Your task to perform on an android device: See recent photos Image 0: 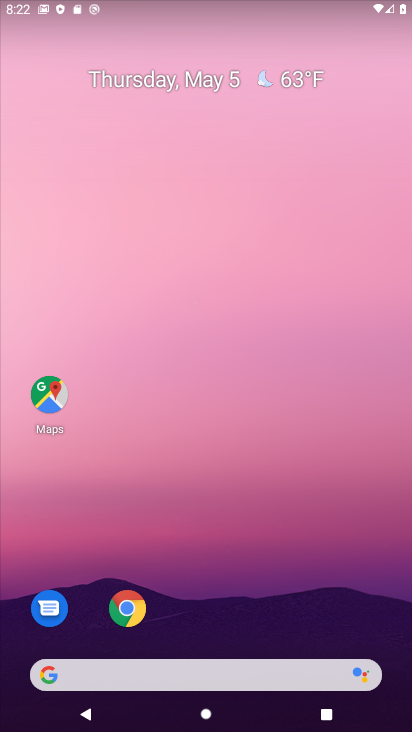
Step 0: drag from (213, 602) to (87, 103)
Your task to perform on an android device: See recent photos Image 1: 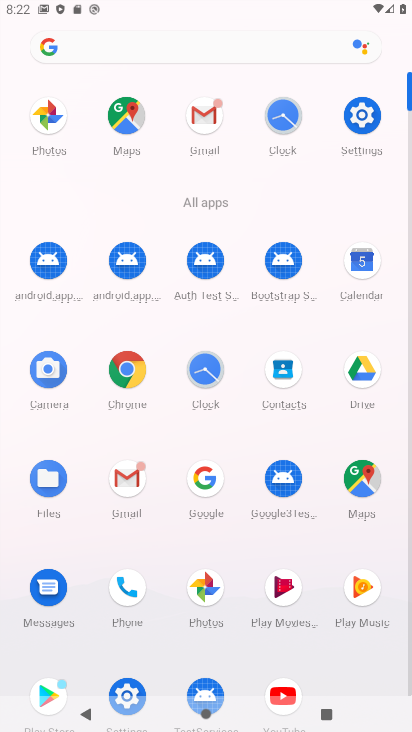
Step 1: click (205, 599)
Your task to perform on an android device: See recent photos Image 2: 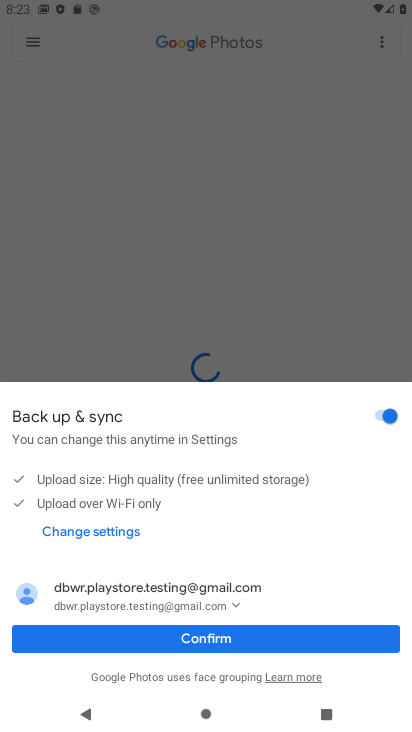
Step 2: click (201, 642)
Your task to perform on an android device: See recent photos Image 3: 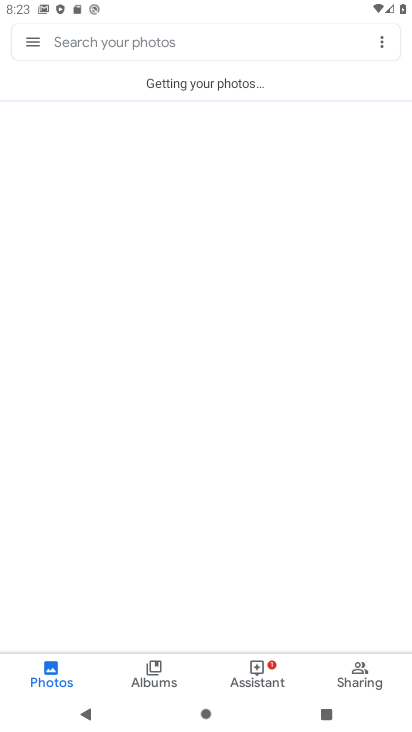
Step 3: click (274, 379)
Your task to perform on an android device: See recent photos Image 4: 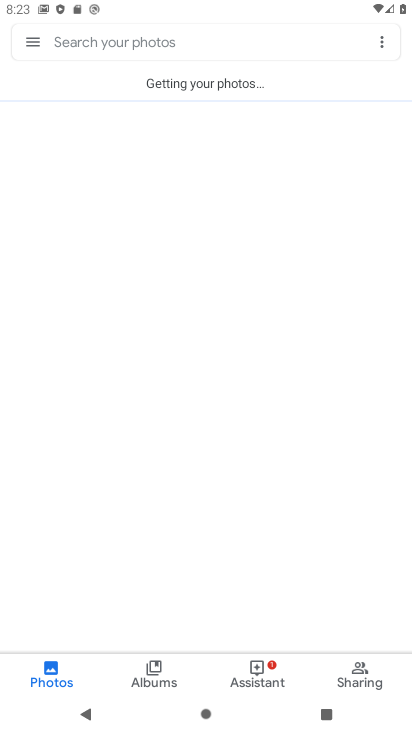
Step 4: click (200, 343)
Your task to perform on an android device: See recent photos Image 5: 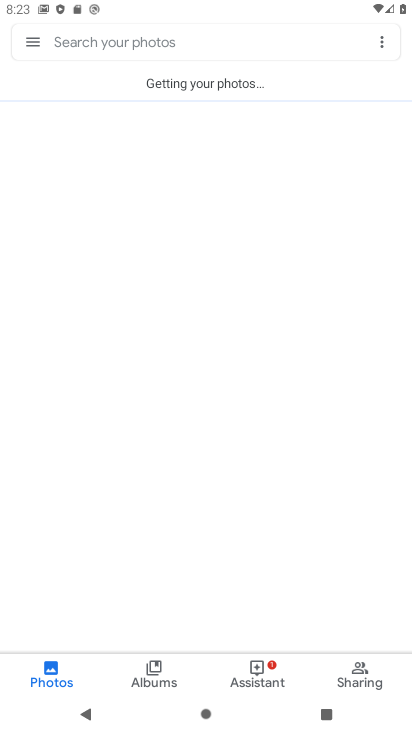
Step 5: click (200, 343)
Your task to perform on an android device: See recent photos Image 6: 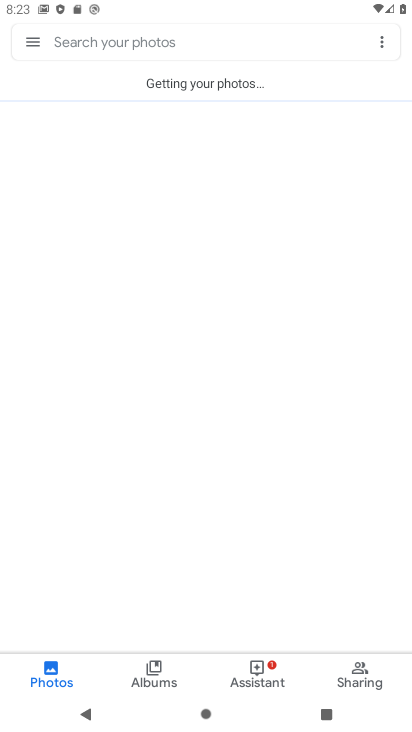
Step 6: click (167, 223)
Your task to perform on an android device: See recent photos Image 7: 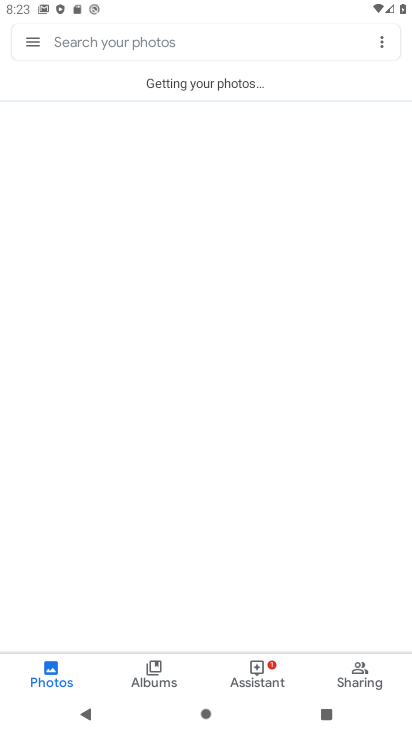
Step 7: click (119, 143)
Your task to perform on an android device: See recent photos Image 8: 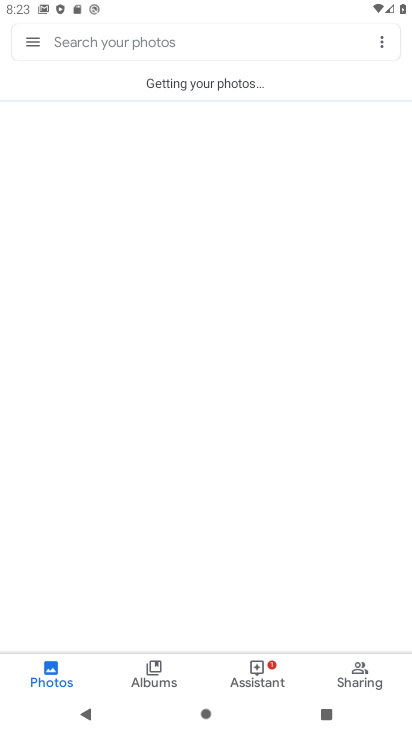
Step 8: click (241, 136)
Your task to perform on an android device: See recent photos Image 9: 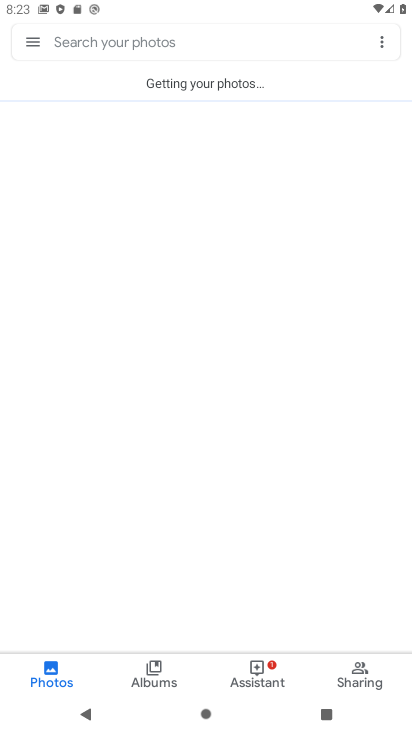
Step 9: click (297, 145)
Your task to perform on an android device: See recent photos Image 10: 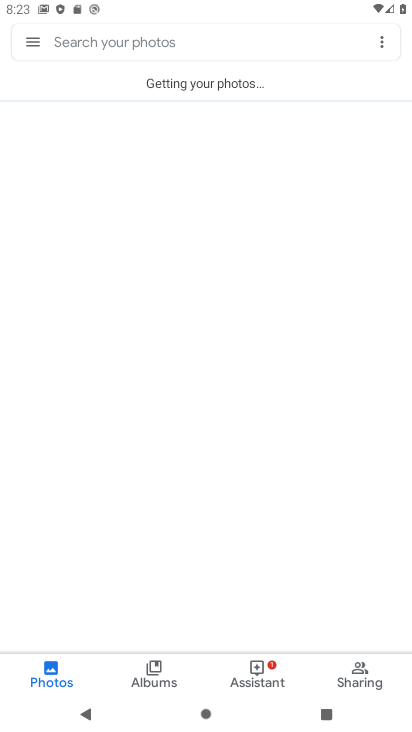
Step 10: click (281, 201)
Your task to perform on an android device: See recent photos Image 11: 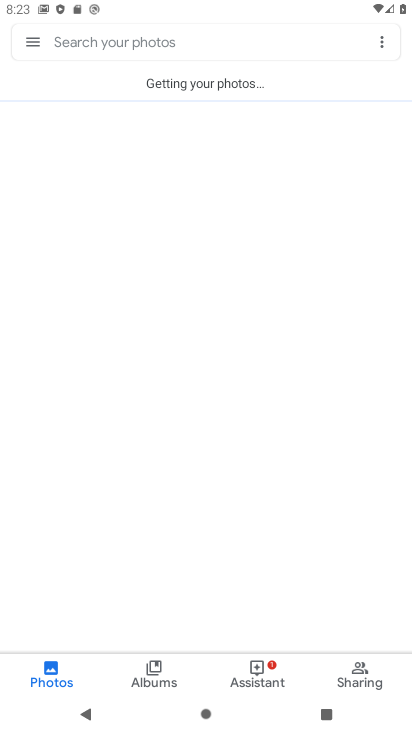
Step 11: click (255, 381)
Your task to perform on an android device: See recent photos Image 12: 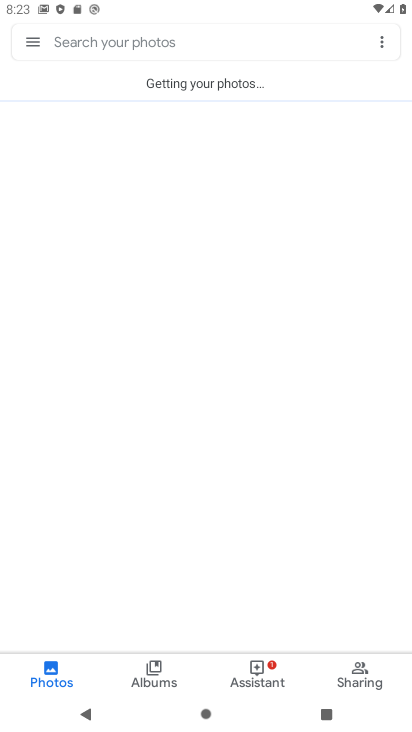
Step 12: click (255, 381)
Your task to perform on an android device: See recent photos Image 13: 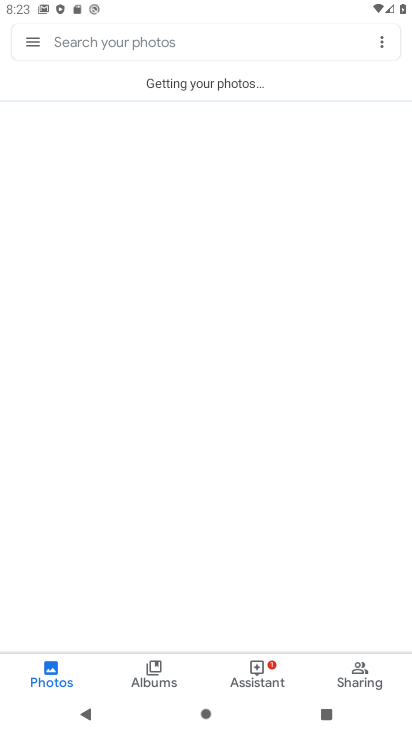
Step 13: click (156, 208)
Your task to perform on an android device: See recent photos Image 14: 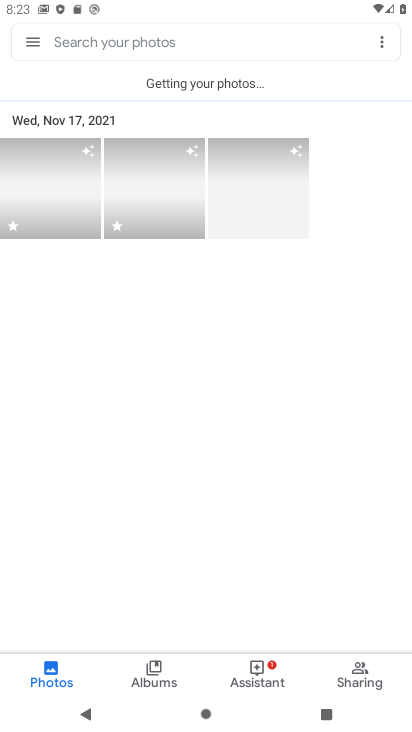
Step 14: click (156, 208)
Your task to perform on an android device: See recent photos Image 15: 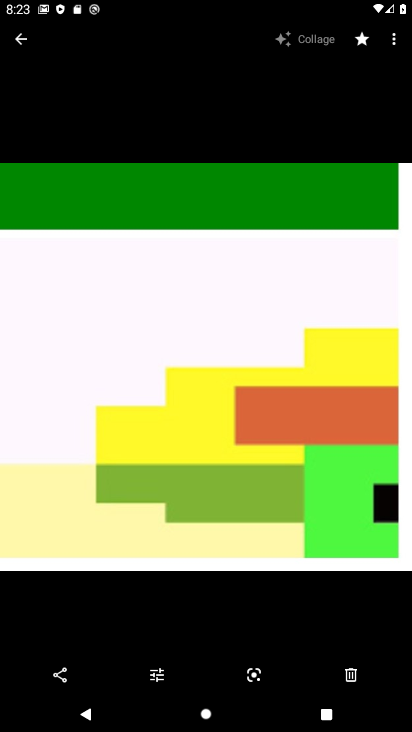
Step 15: click (23, 39)
Your task to perform on an android device: See recent photos Image 16: 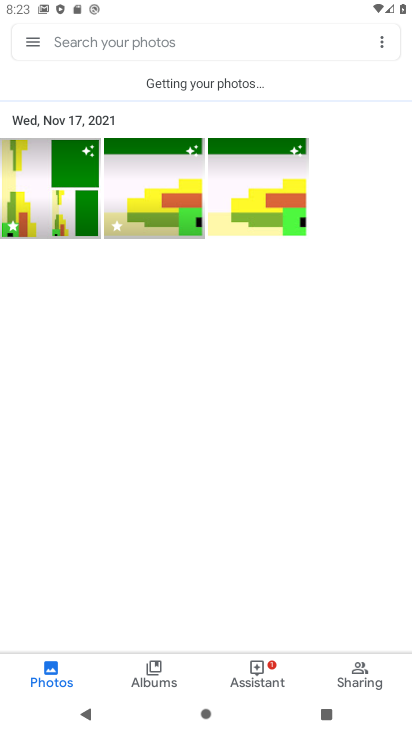
Step 16: task complete